Your task to perform on an android device: set the timer Image 0: 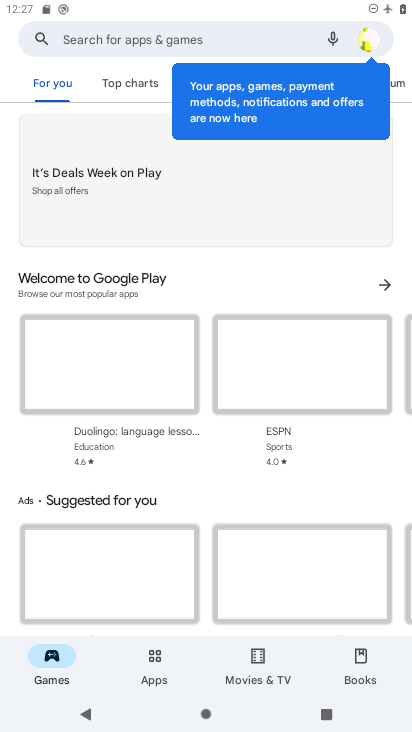
Step 0: press home button
Your task to perform on an android device: set the timer Image 1: 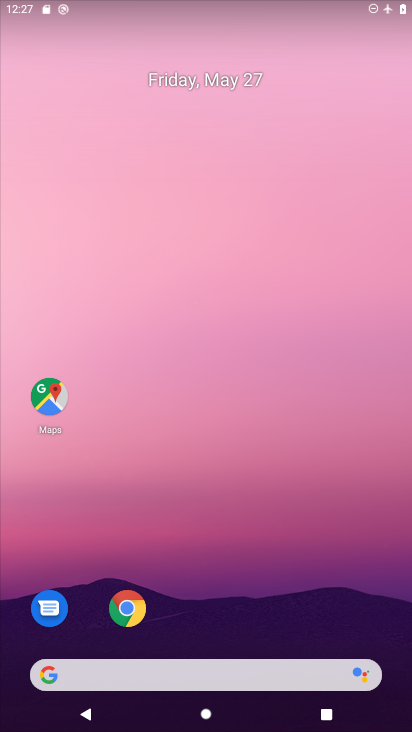
Step 1: drag from (150, 672) to (386, 76)
Your task to perform on an android device: set the timer Image 2: 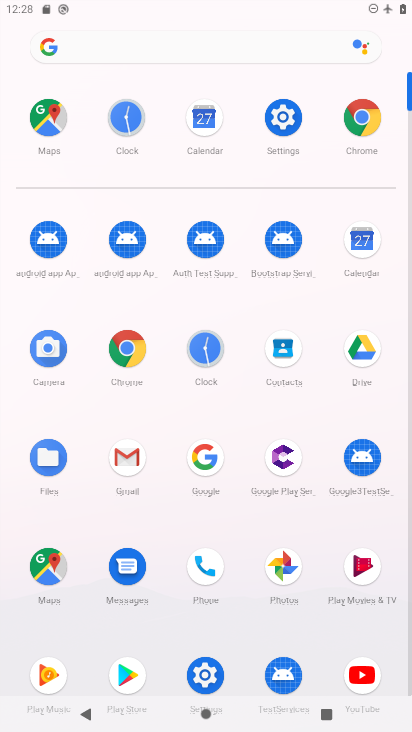
Step 2: click (129, 123)
Your task to perform on an android device: set the timer Image 3: 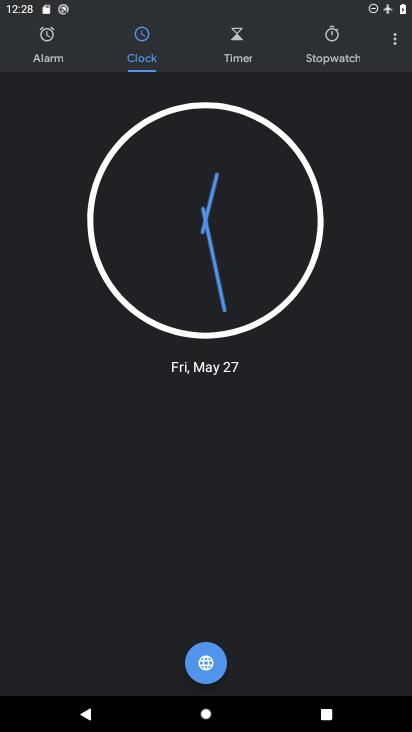
Step 3: click (232, 30)
Your task to perform on an android device: set the timer Image 4: 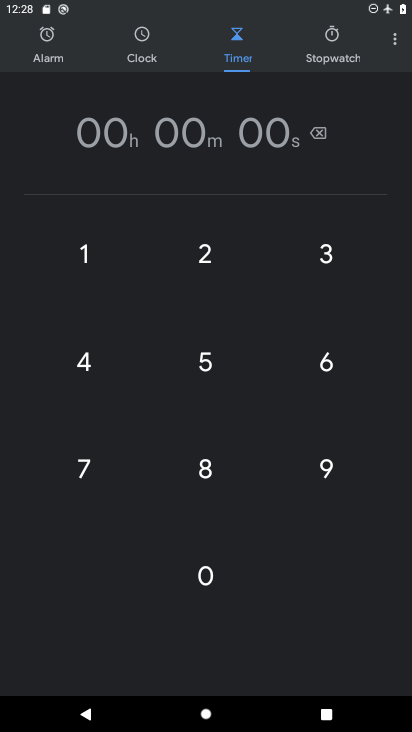
Step 4: click (321, 251)
Your task to perform on an android device: set the timer Image 5: 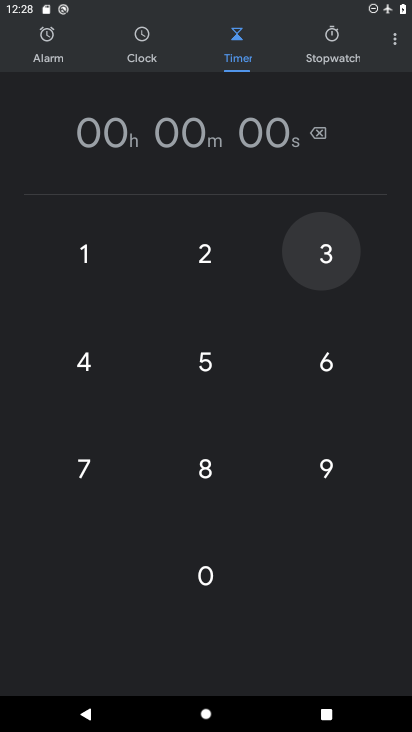
Step 5: click (321, 251)
Your task to perform on an android device: set the timer Image 6: 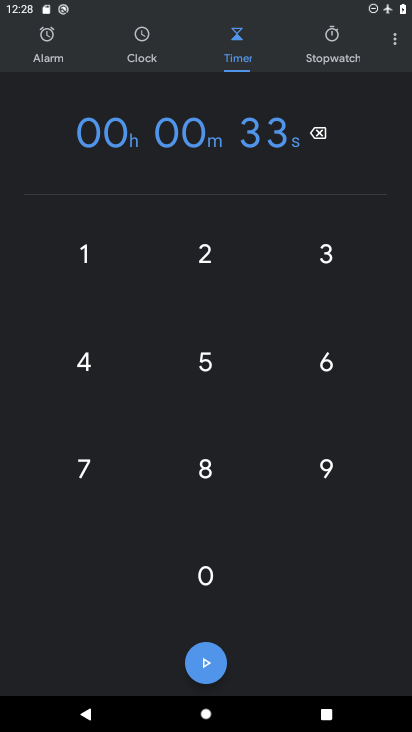
Step 6: click (211, 657)
Your task to perform on an android device: set the timer Image 7: 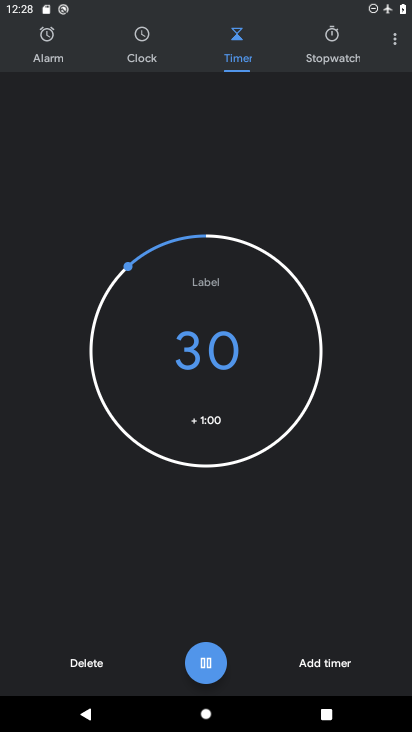
Step 7: click (211, 658)
Your task to perform on an android device: set the timer Image 8: 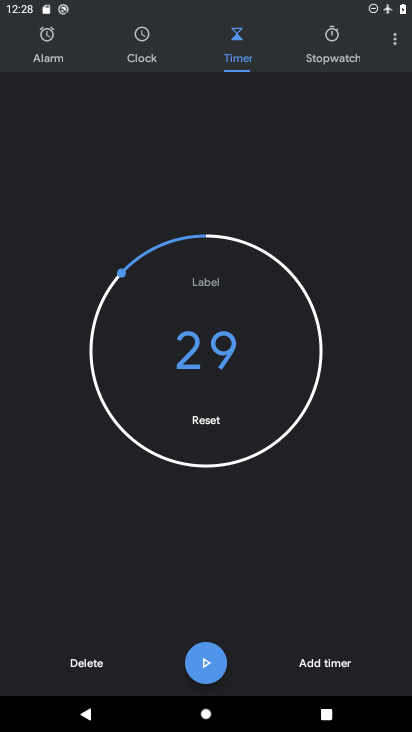
Step 8: task complete